Your task to perform on an android device: See recent photos Image 0: 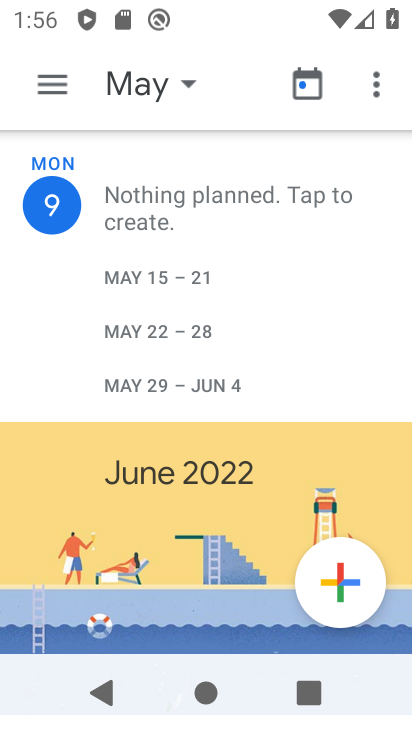
Step 0: press home button
Your task to perform on an android device: See recent photos Image 1: 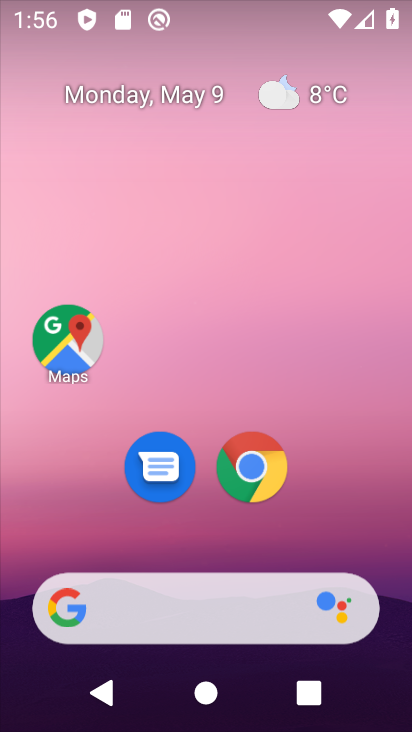
Step 1: drag from (326, 468) to (307, 18)
Your task to perform on an android device: See recent photos Image 2: 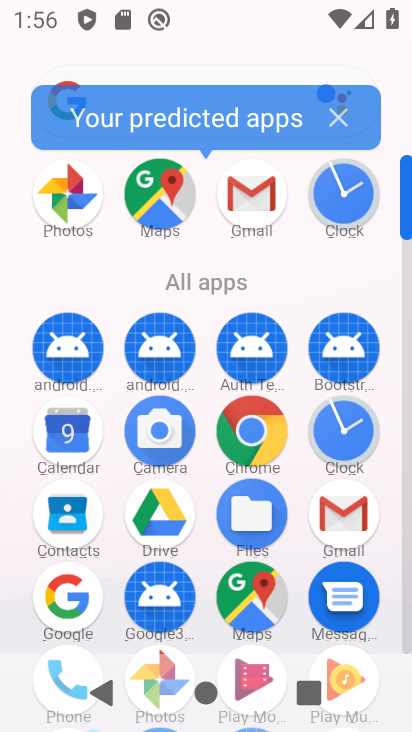
Step 2: drag from (202, 574) to (279, 165)
Your task to perform on an android device: See recent photos Image 3: 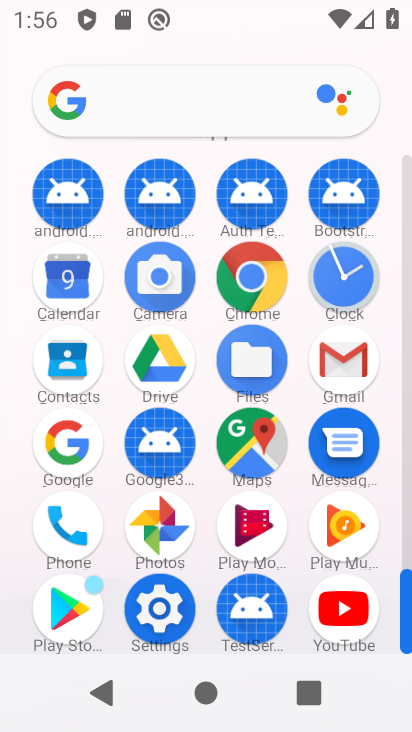
Step 3: click (161, 534)
Your task to perform on an android device: See recent photos Image 4: 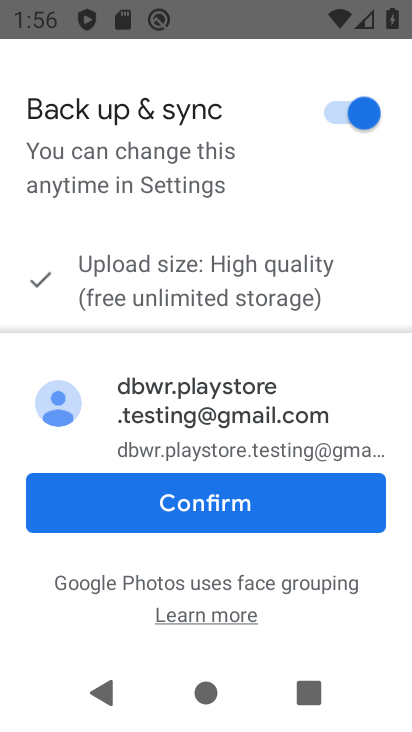
Step 4: click (300, 509)
Your task to perform on an android device: See recent photos Image 5: 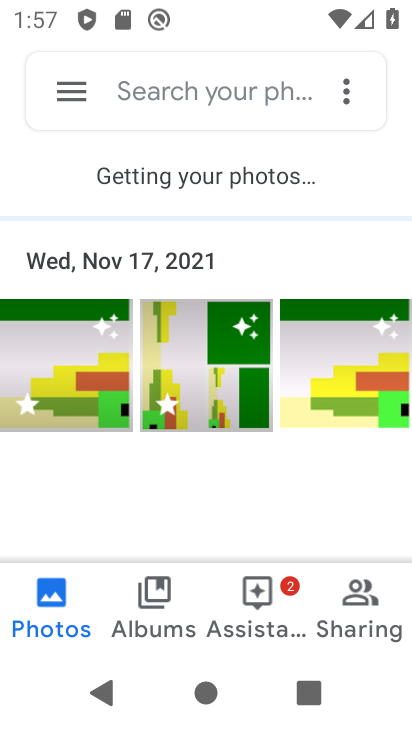
Step 5: task complete